Your task to perform on an android device: Go to eBay Image 0: 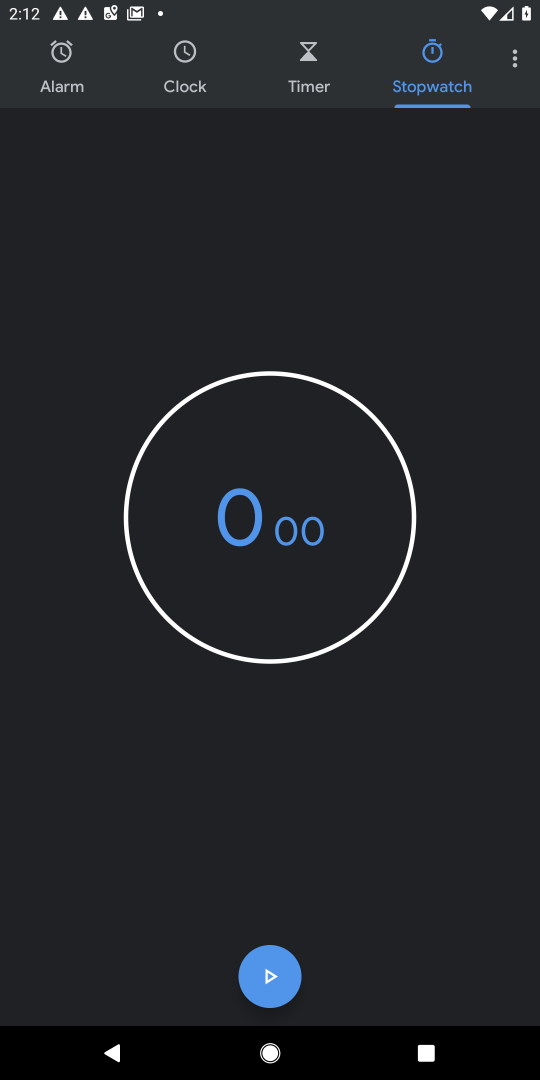
Step 0: press home button
Your task to perform on an android device: Go to eBay Image 1: 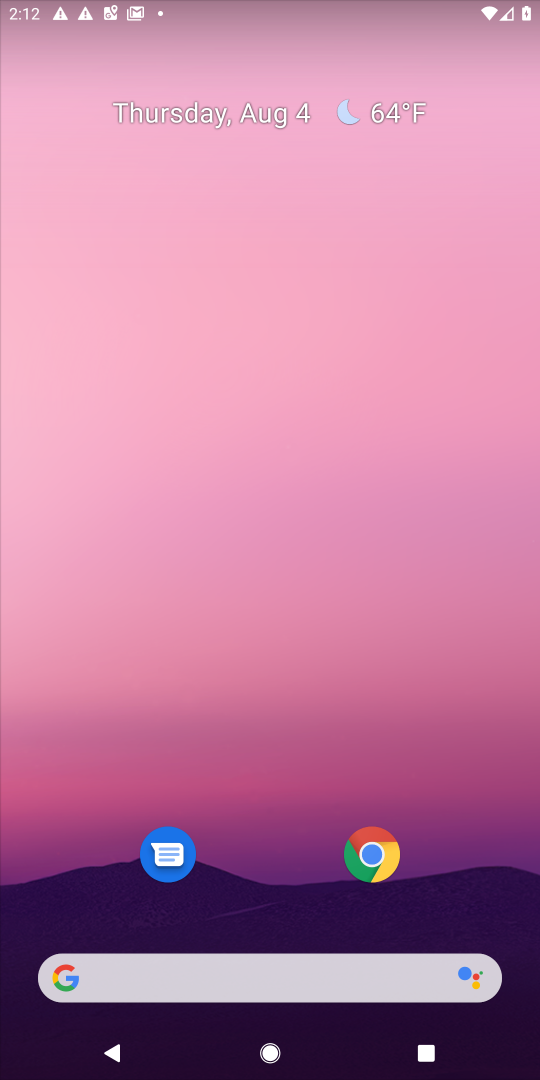
Step 1: drag from (266, 984) to (264, 237)
Your task to perform on an android device: Go to eBay Image 2: 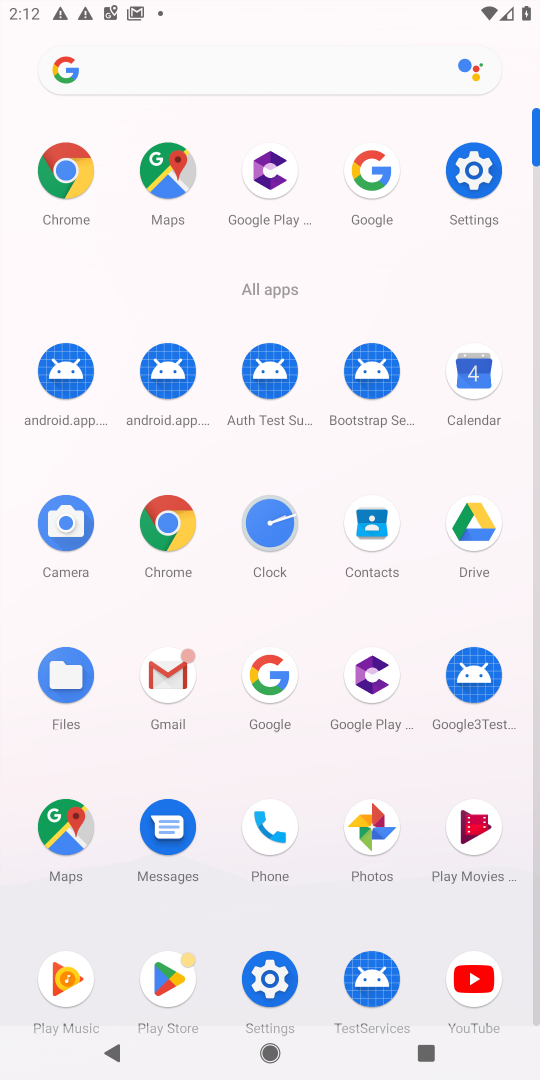
Step 2: click (170, 527)
Your task to perform on an android device: Go to eBay Image 3: 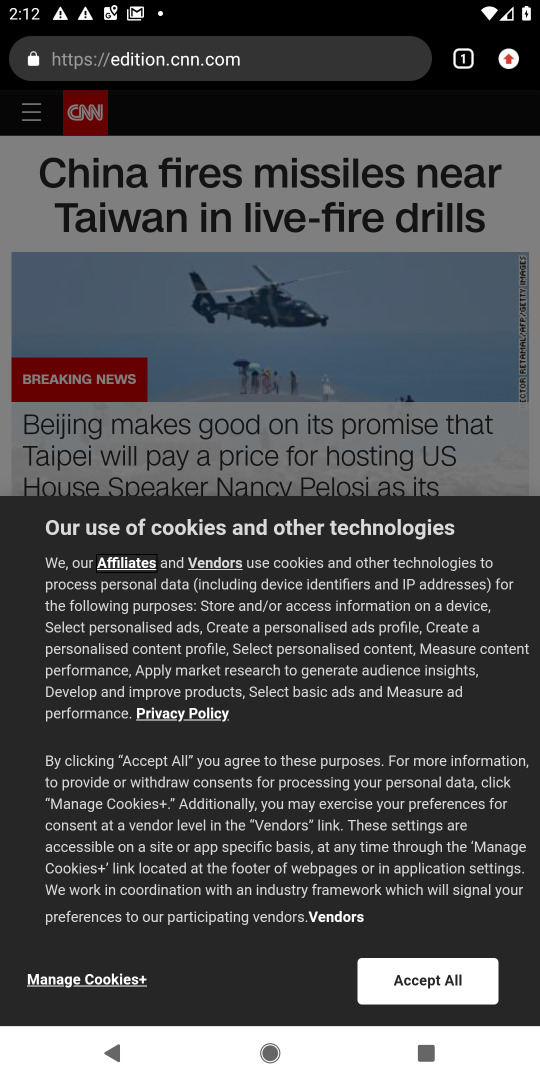
Step 3: click (472, 63)
Your task to perform on an android device: Go to eBay Image 4: 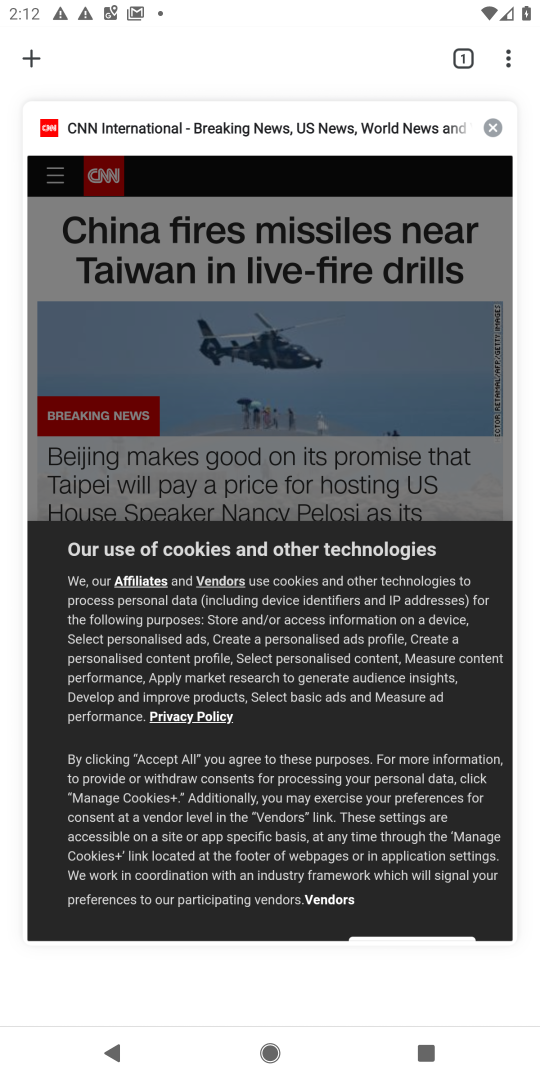
Step 4: click (492, 132)
Your task to perform on an android device: Go to eBay Image 5: 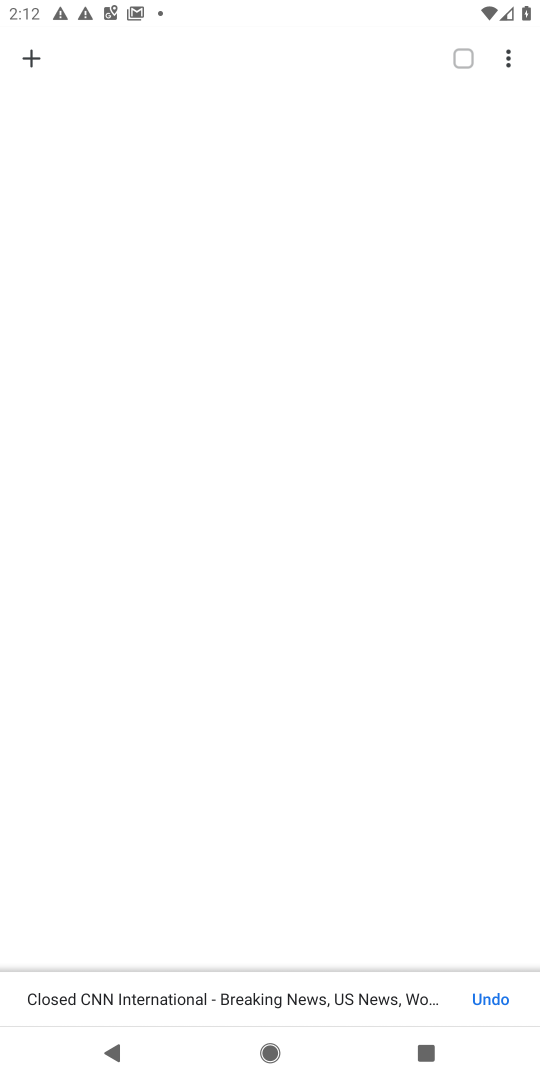
Step 5: click (30, 57)
Your task to perform on an android device: Go to eBay Image 6: 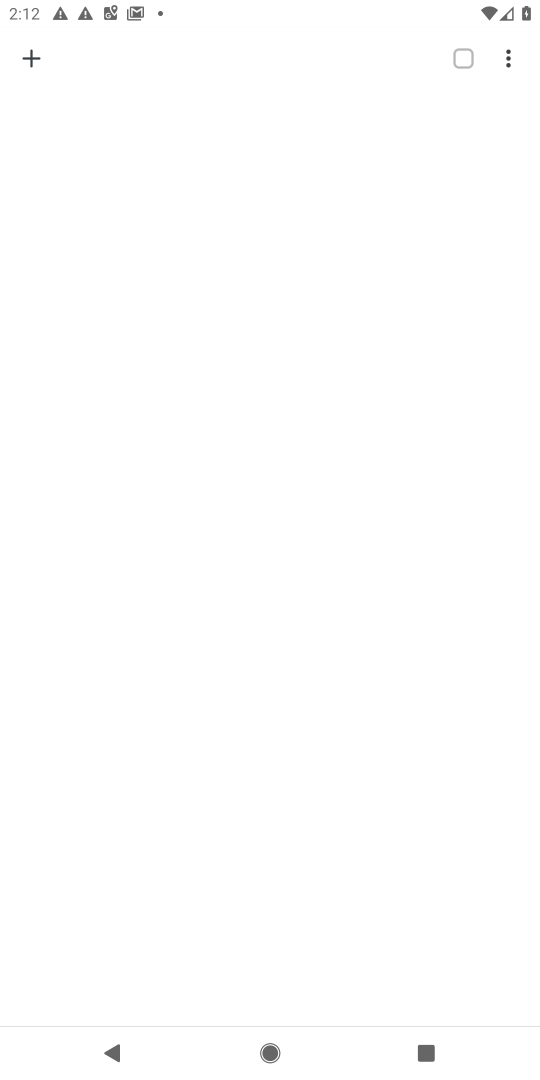
Step 6: click (29, 50)
Your task to perform on an android device: Go to eBay Image 7: 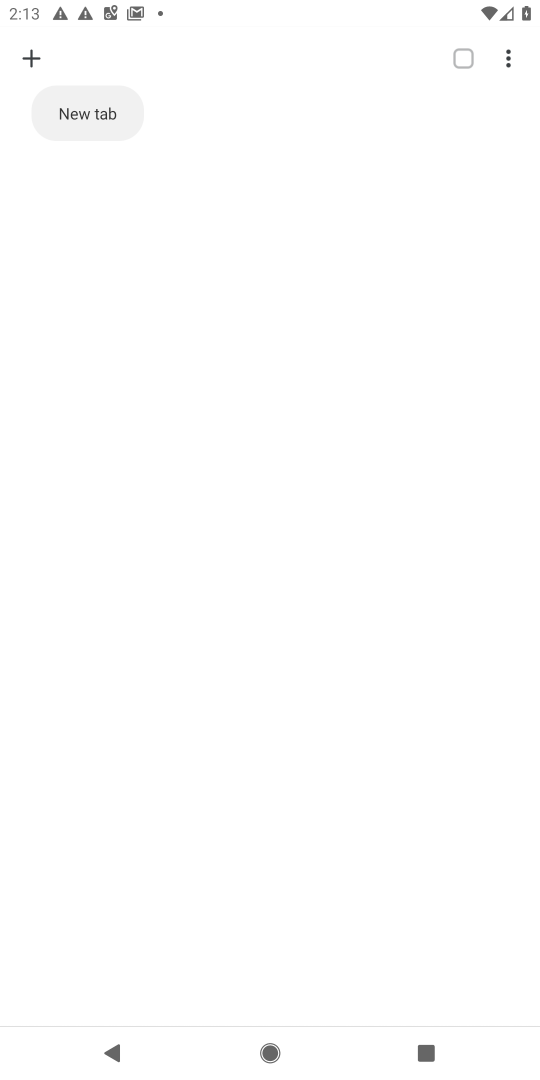
Step 7: click (70, 110)
Your task to perform on an android device: Go to eBay Image 8: 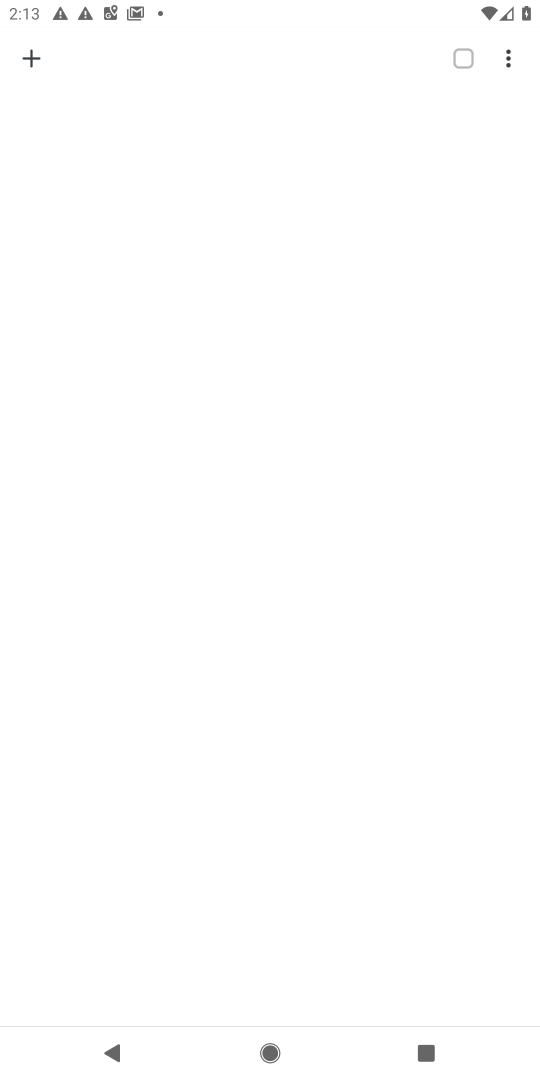
Step 8: click (40, 59)
Your task to perform on an android device: Go to eBay Image 9: 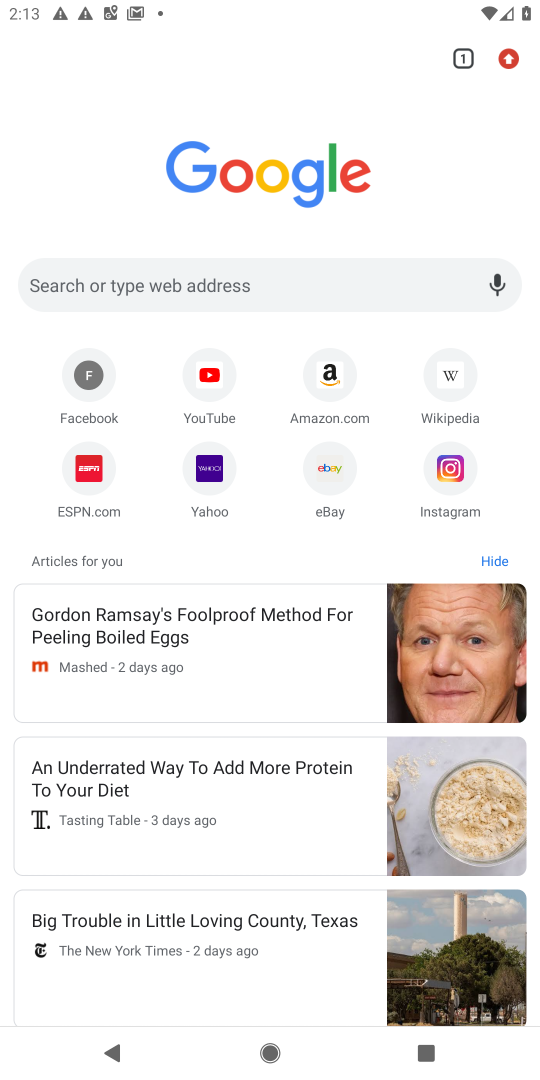
Step 9: click (342, 466)
Your task to perform on an android device: Go to eBay Image 10: 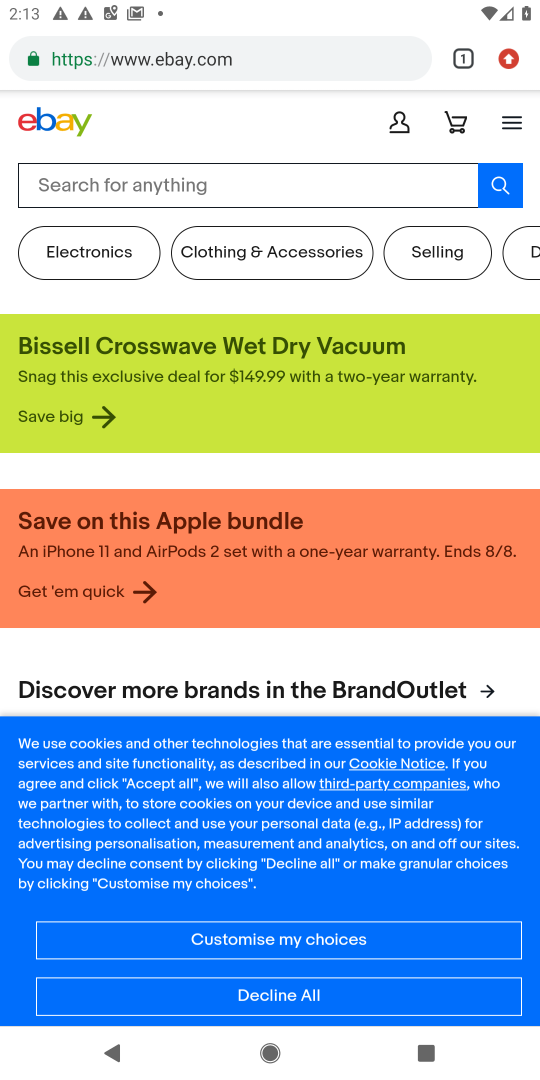
Step 10: task complete